Your task to perform on an android device: Open Google Maps Image 0: 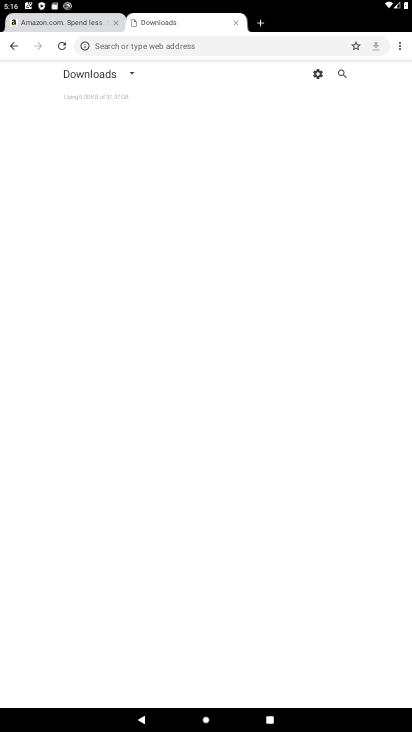
Step 0: press home button
Your task to perform on an android device: Open Google Maps Image 1: 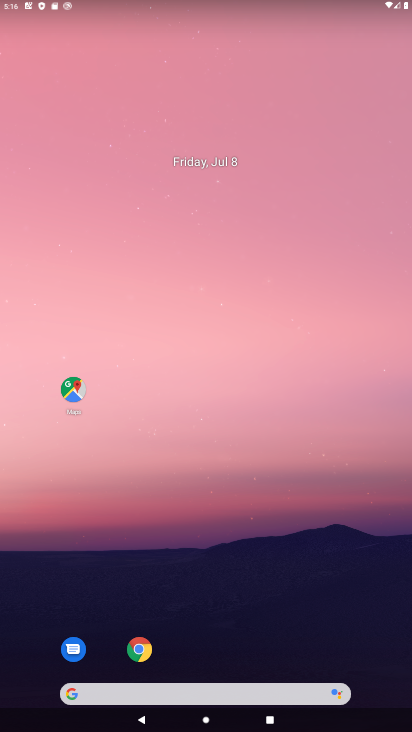
Step 1: click (73, 395)
Your task to perform on an android device: Open Google Maps Image 2: 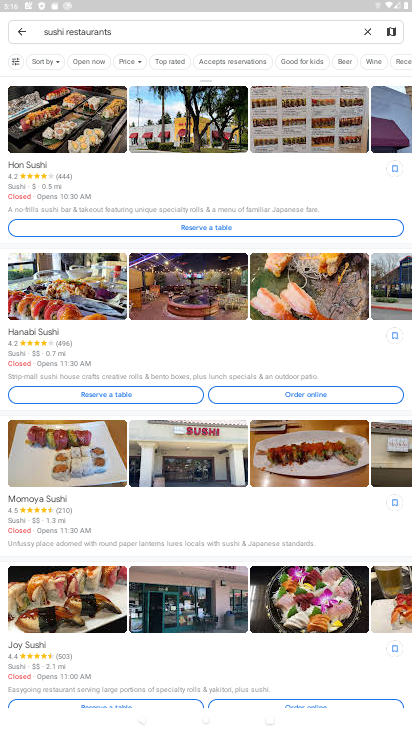
Step 2: task complete